Your task to perform on an android device: change the clock display to analog Image 0: 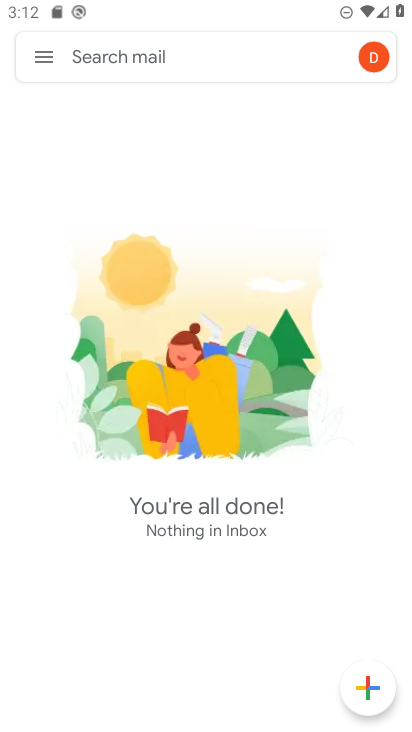
Step 0: press home button
Your task to perform on an android device: change the clock display to analog Image 1: 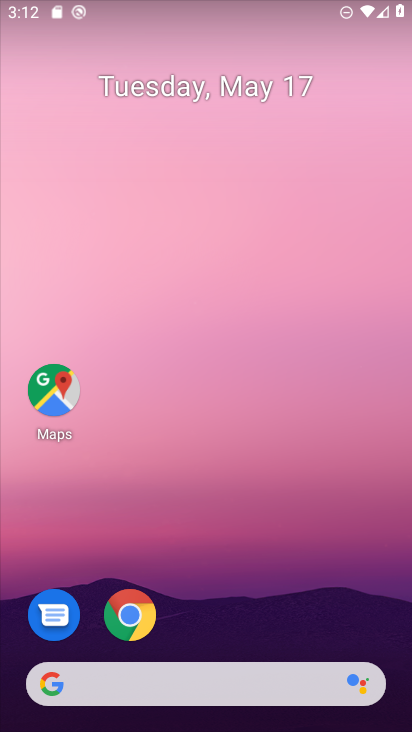
Step 1: drag from (252, 724) to (225, 246)
Your task to perform on an android device: change the clock display to analog Image 2: 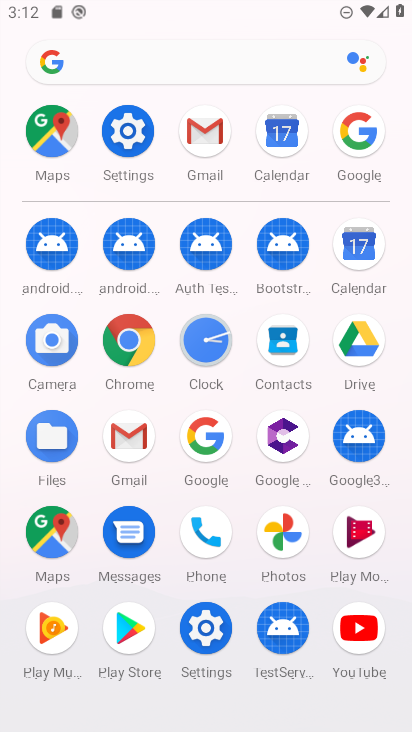
Step 2: click (200, 344)
Your task to perform on an android device: change the clock display to analog Image 3: 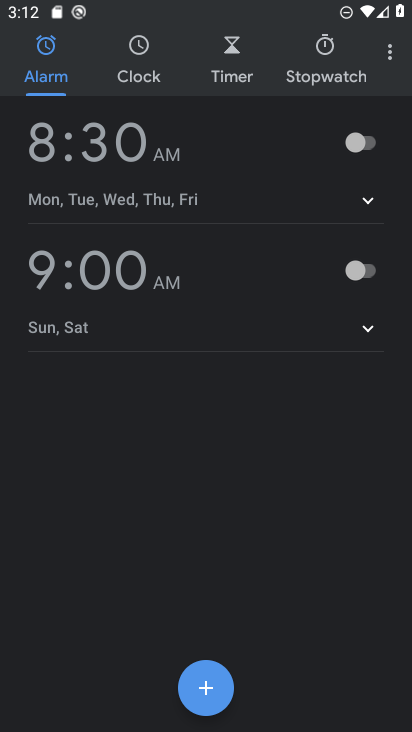
Step 3: click (389, 59)
Your task to perform on an android device: change the clock display to analog Image 4: 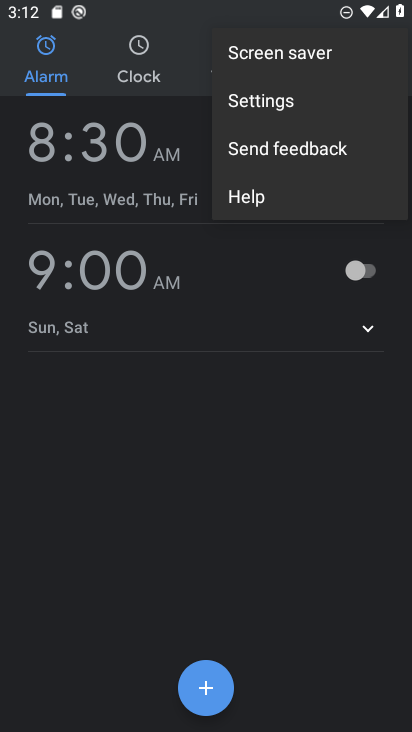
Step 4: click (258, 94)
Your task to perform on an android device: change the clock display to analog Image 5: 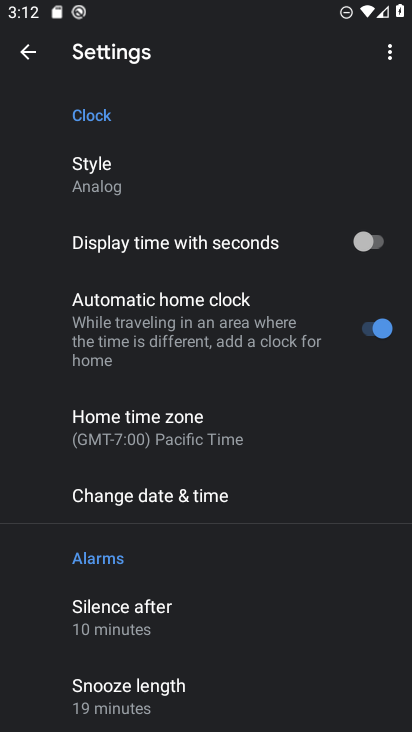
Step 5: task complete